Your task to perform on an android device: Show me productivity apps on the Play Store Image 0: 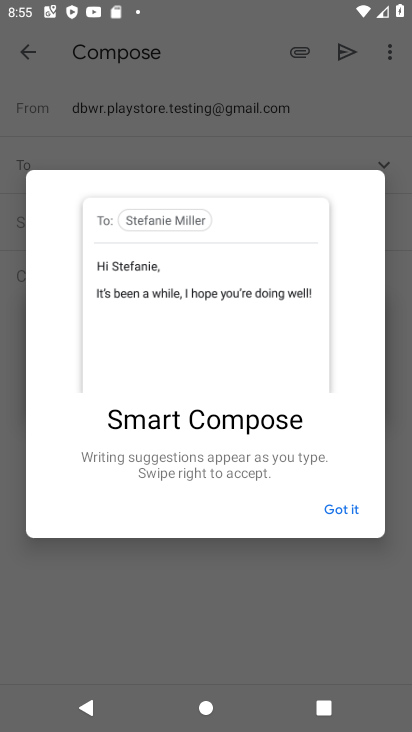
Step 0: press home button
Your task to perform on an android device: Show me productivity apps on the Play Store Image 1: 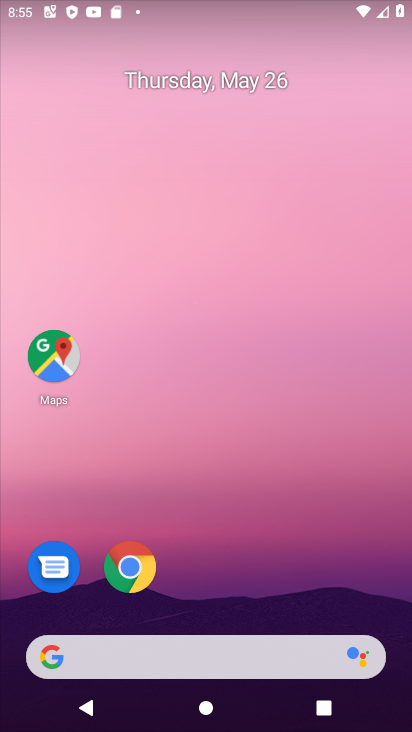
Step 1: drag from (172, 657) to (328, 138)
Your task to perform on an android device: Show me productivity apps on the Play Store Image 2: 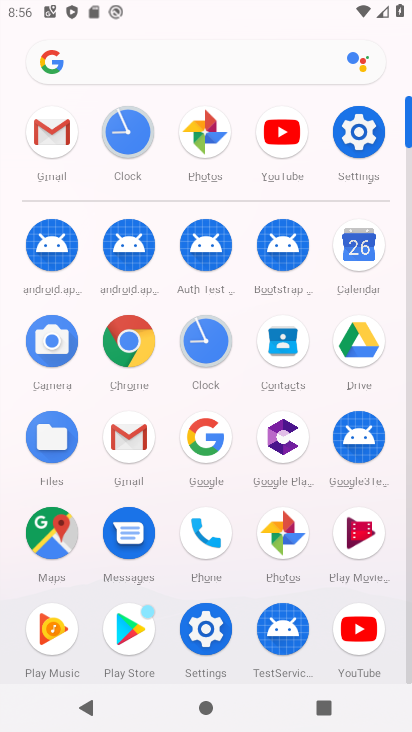
Step 2: click (121, 629)
Your task to perform on an android device: Show me productivity apps on the Play Store Image 3: 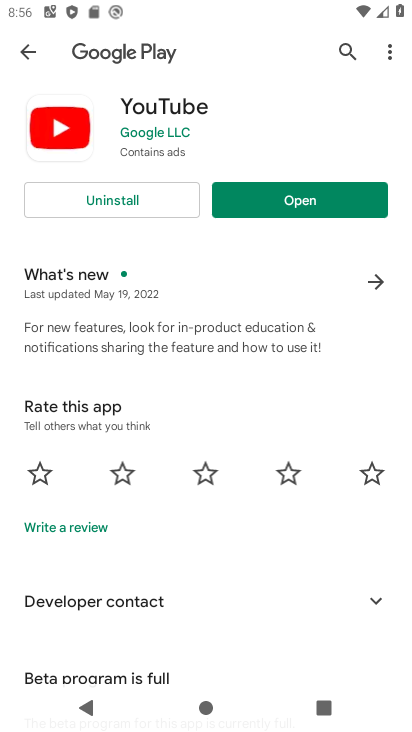
Step 3: click (33, 49)
Your task to perform on an android device: Show me productivity apps on the Play Store Image 4: 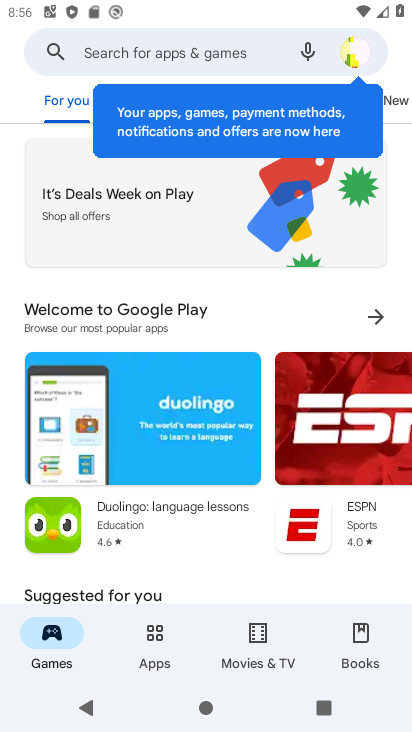
Step 4: click (157, 645)
Your task to perform on an android device: Show me productivity apps on the Play Store Image 5: 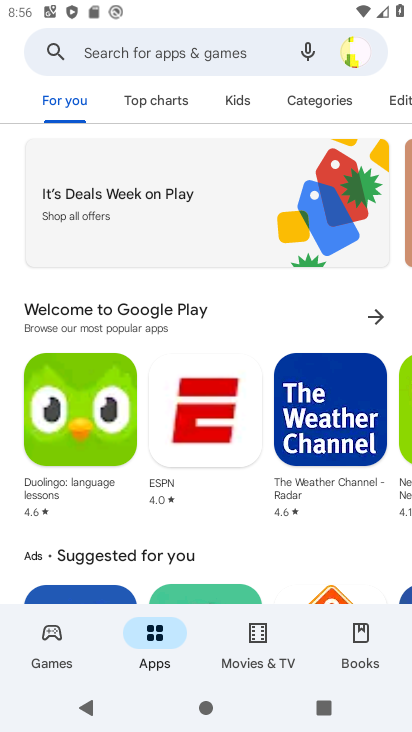
Step 5: click (314, 96)
Your task to perform on an android device: Show me productivity apps on the Play Store Image 6: 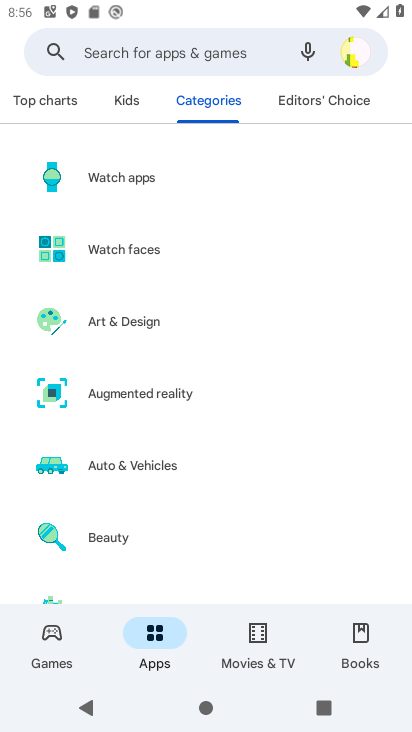
Step 6: drag from (200, 591) to (354, 96)
Your task to perform on an android device: Show me productivity apps on the Play Store Image 7: 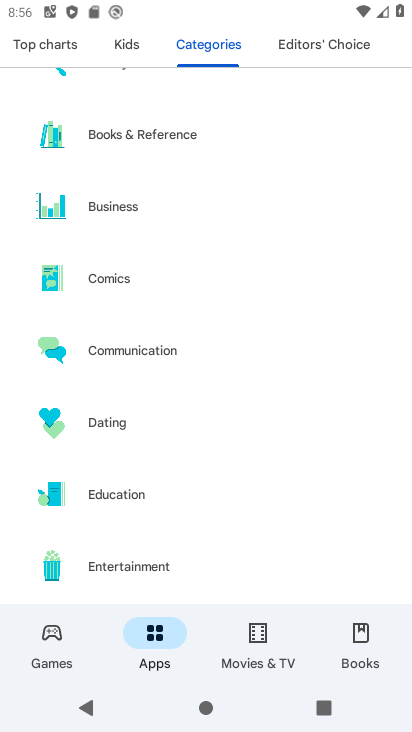
Step 7: drag from (179, 527) to (323, 169)
Your task to perform on an android device: Show me productivity apps on the Play Store Image 8: 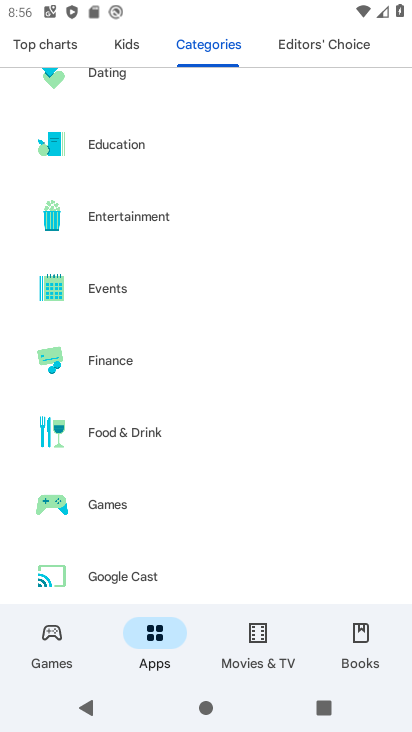
Step 8: drag from (198, 531) to (352, 85)
Your task to perform on an android device: Show me productivity apps on the Play Store Image 9: 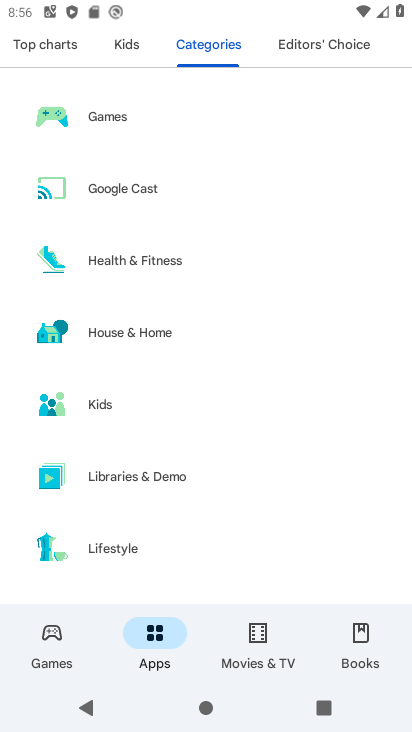
Step 9: drag from (231, 488) to (288, 38)
Your task to perform on an android device: Show me productivity apps on the Play Store Image 10: 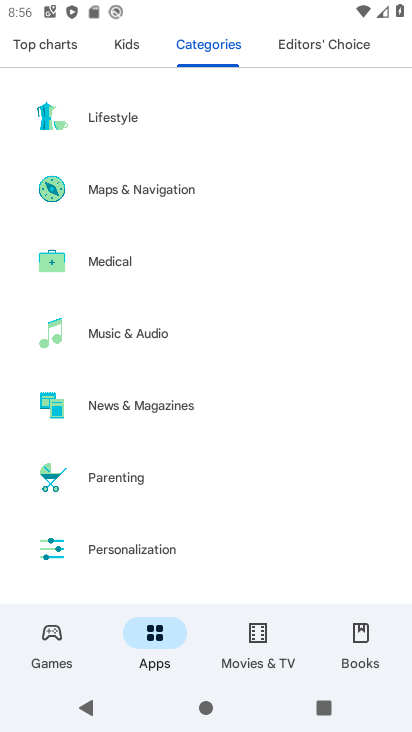
Step 10: drag from (212, 564) to (318, 111)
Your task to perform on an android device: Show me productivity apps on the Play Store Image 11: 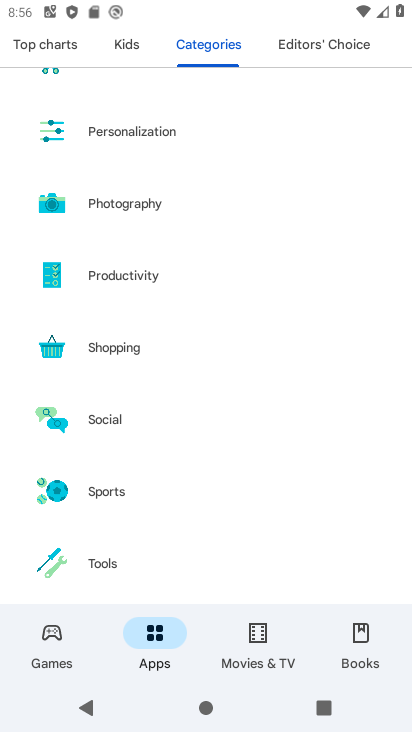
Step 11: click (141, 270)
Your task to perform on an android device: Show me productivity apps on the Play Store Image 12: 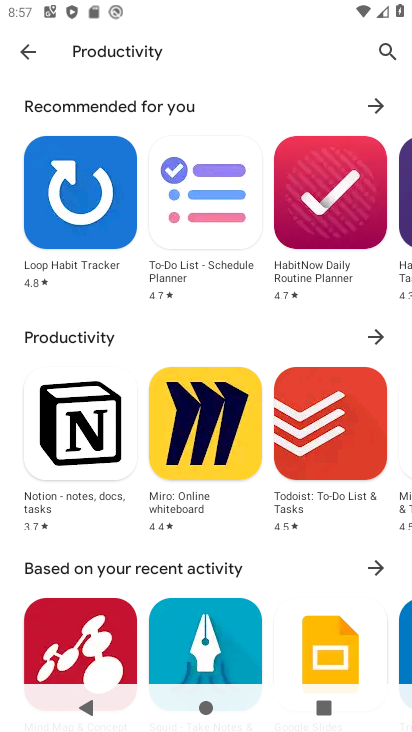
Step 12: task complete